Your task to perform on an android device: Open eBay Image 0: 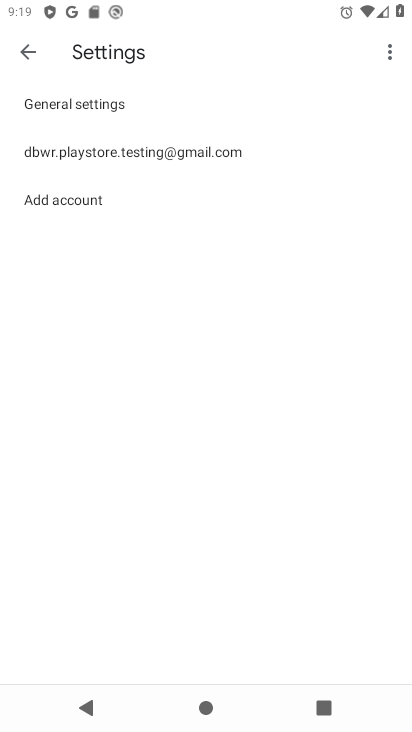
Step 0: press home button
Your task to perform on an android device: Open eBay Image 1: 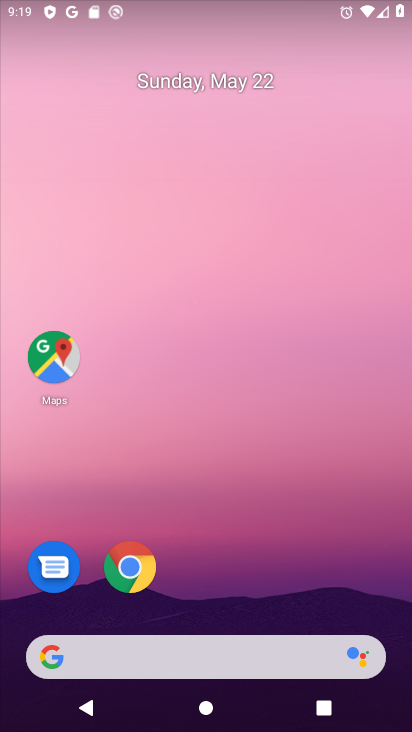
Step 1: click (134, 573)
Your task to perform on an android device: Open eBay Image 2: 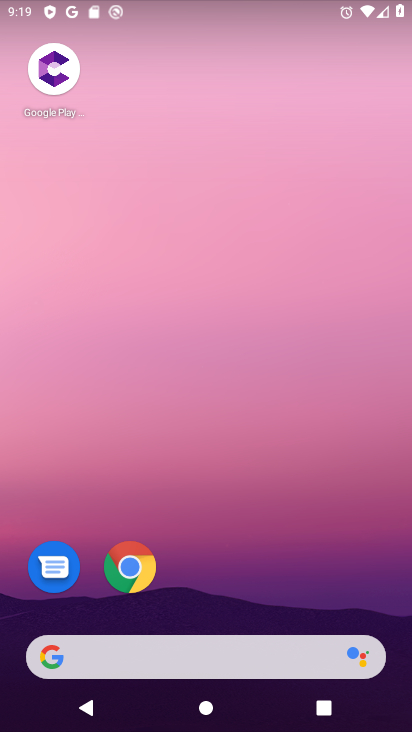
Step 2: click (128, 566)
Your task to perform on an android device: Open eBay Image 3: 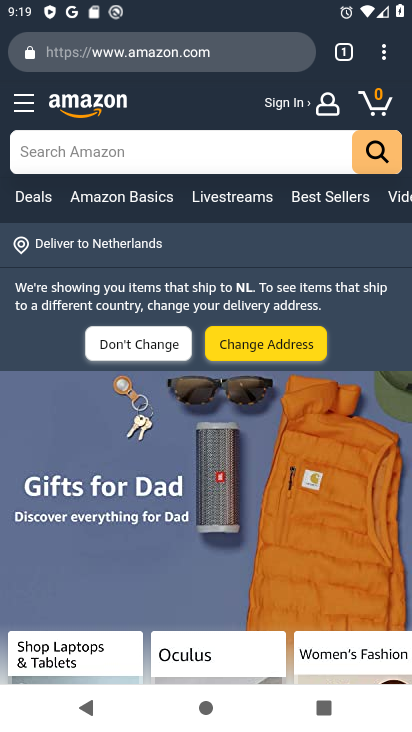
Step 3: click (160, 56)
Your task to perform on an android device: Open eBay Image 4: 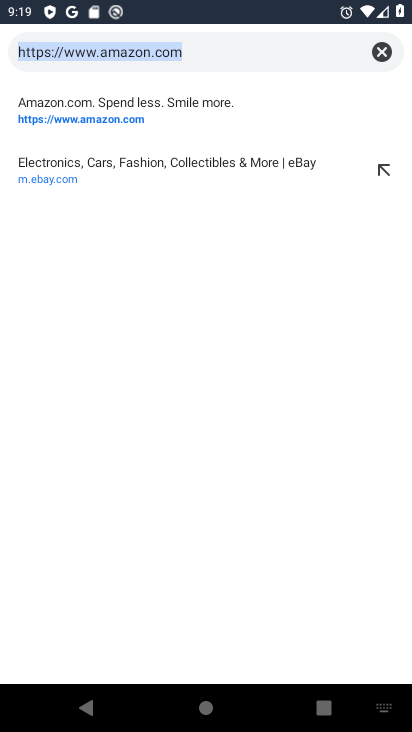
Step 4: type "eBay"
Your task to perform on an android device: Open eBay Image 5: 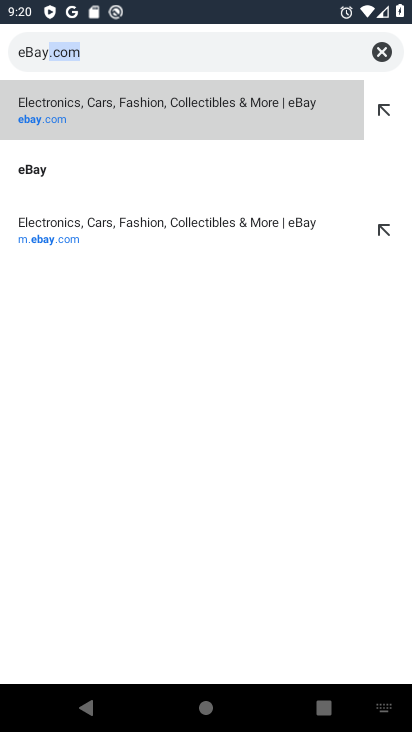
Step 5: click (140, 119)
Your task to perform on an android device: Open eBay Image 6: 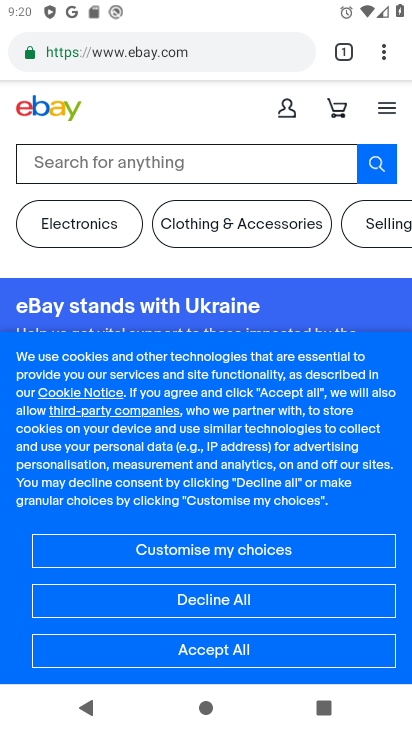
Step 6: task complete